Your task to perform on an android device: Open network settings Image 0: 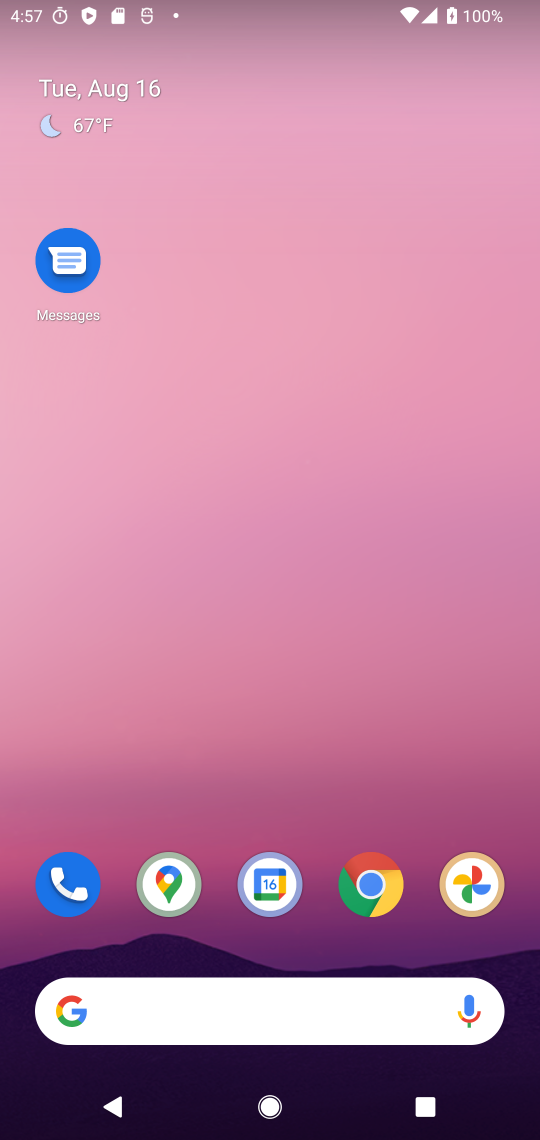
Step 0: drag from (59, 1103) to (490, 272)
Your task to perform on an android device: Open network settings Image 1: 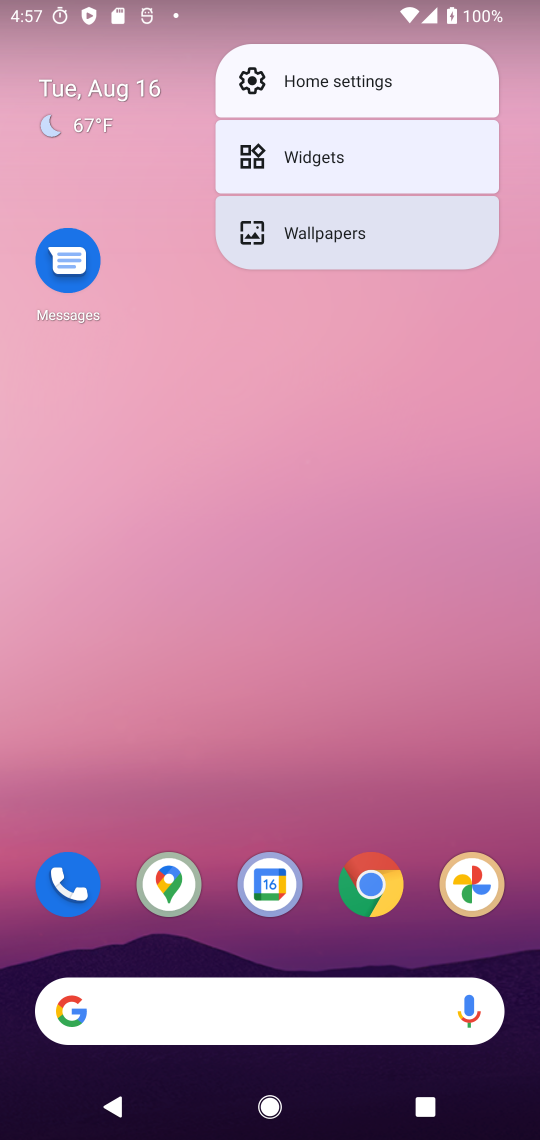
Step 1: drag from (59, 1059) to (528, 258)
Your task to perform on an android device: Open network settings Image 2: 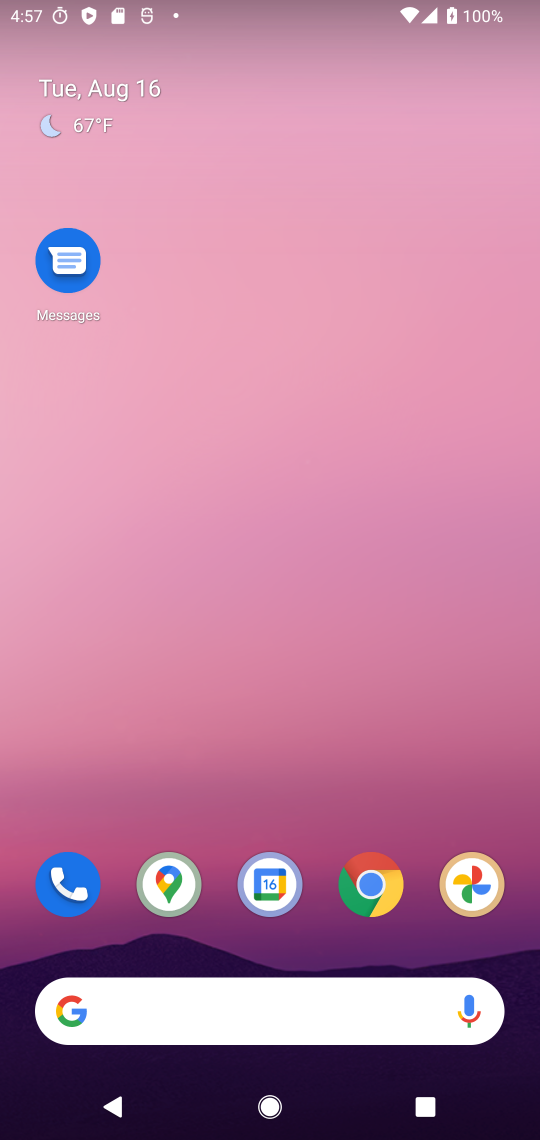
Step 2: drag from (54, 1066) to (325, 319)
Your task to perform on an android device: Open network settings Image 3: 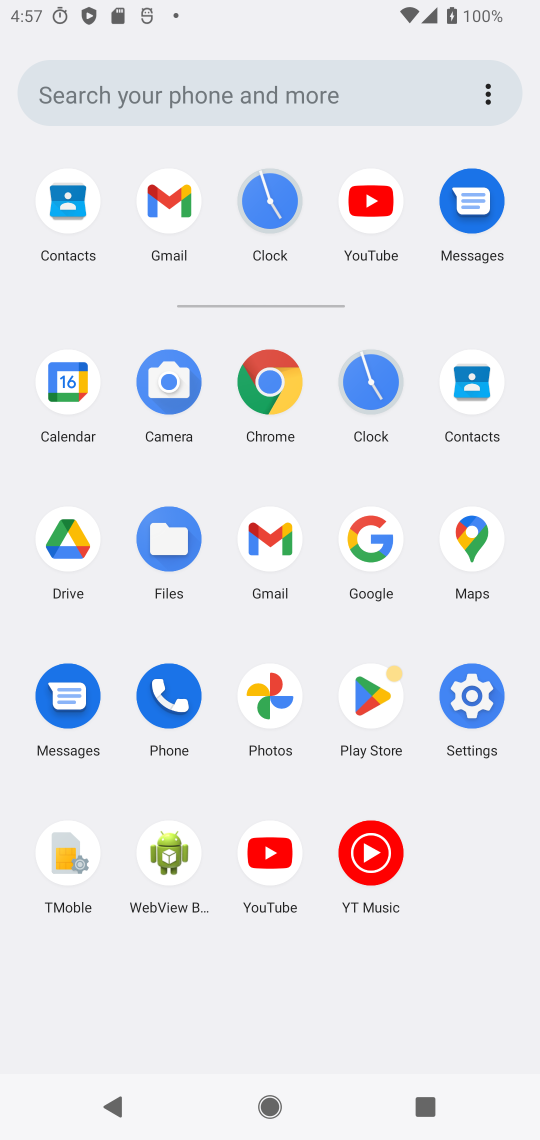
Step 3: click (462, 700)
Your task to perform on an android device: Open network settings Image 4: 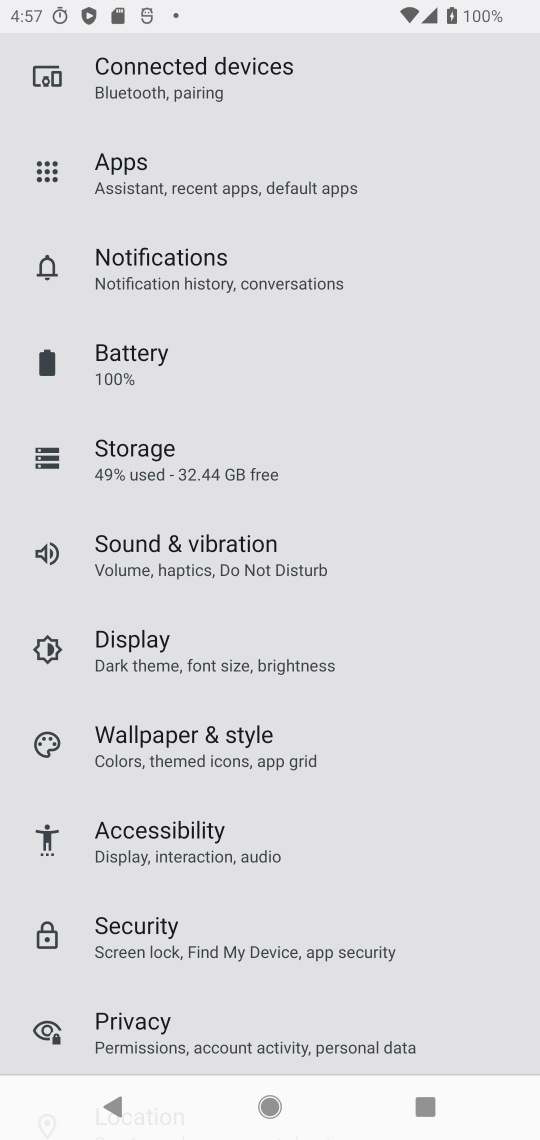
Step 4: drag from (463, 96) to (398, 697)
Your task to perform on an android device: Open network settings Image 5: 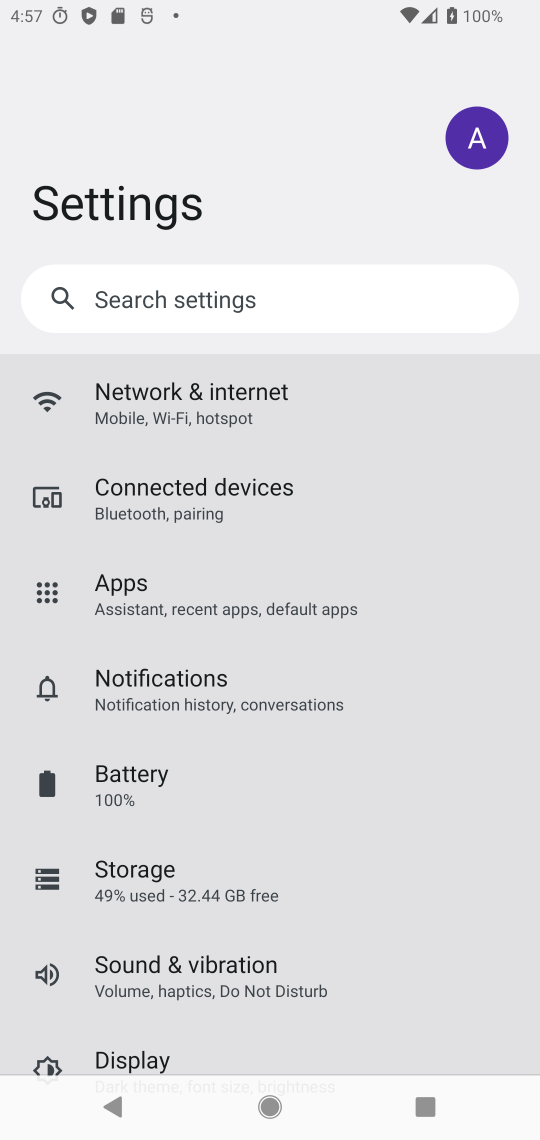
Step 5: click (179, 413)
Your task to perform on an android device: Open network settings Image 6: 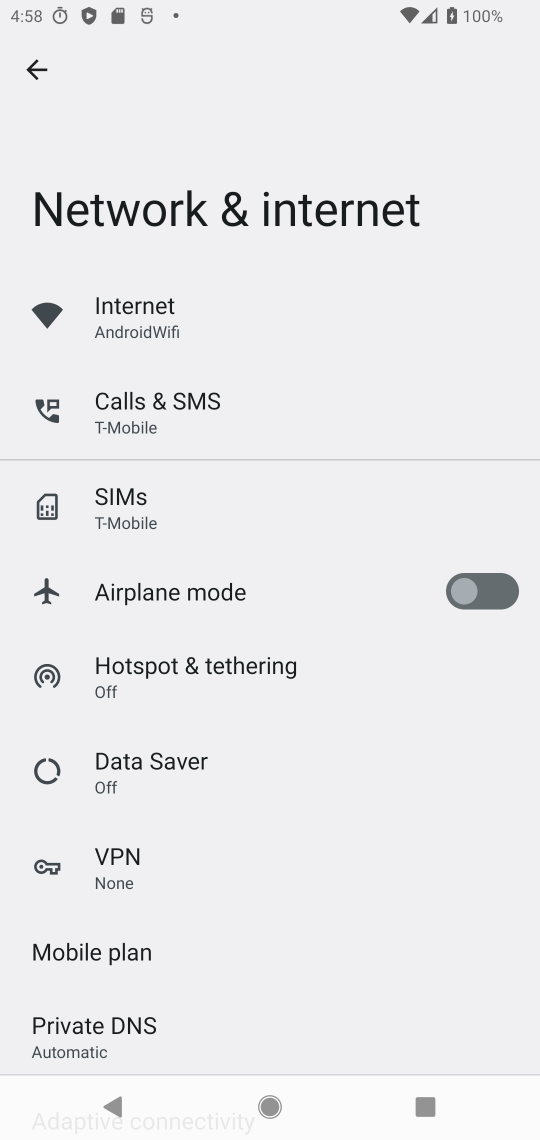
Step 6: task complete